Your task to perform on an android device: Show the shopping cart on ebay.com. Add razer nari to the cart on ebay.com Image 0: 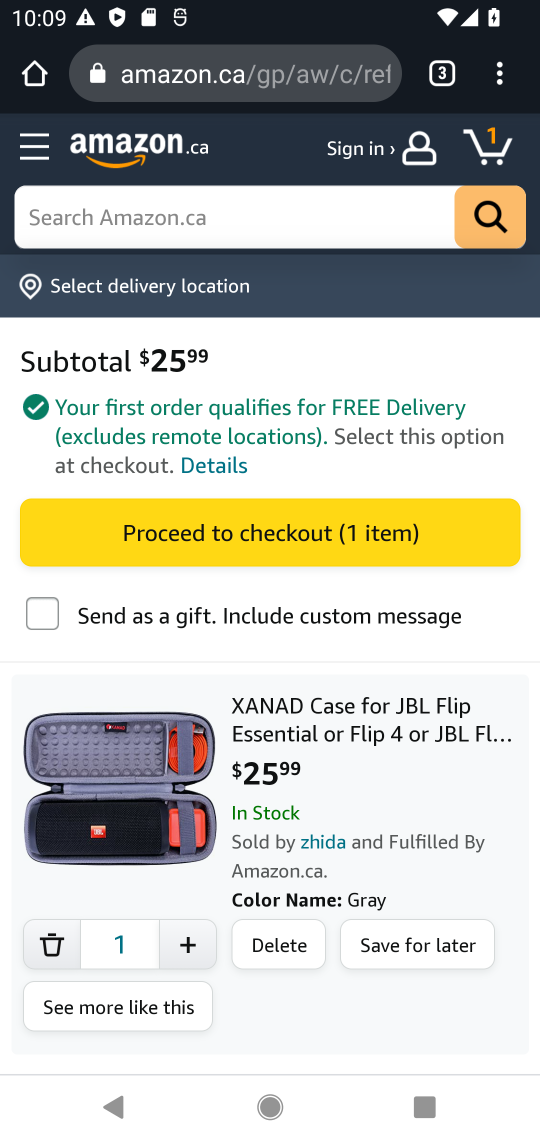
Step 0: press back button
Your task to perform on an android device: Show the shopping cart on ebay.com. Add razer nari to the cart on ebay.com Image 1: 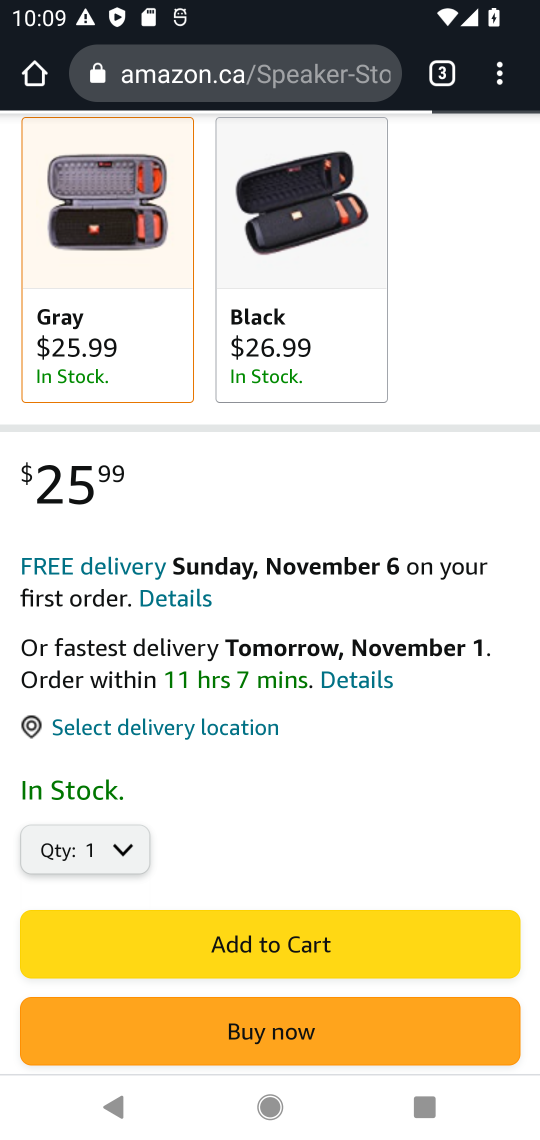
Step 1: press back button
Your task to perform on an android device: Show the shopping cart on ebay.com. Add razer nari to the cart on ebay.com Image 2: 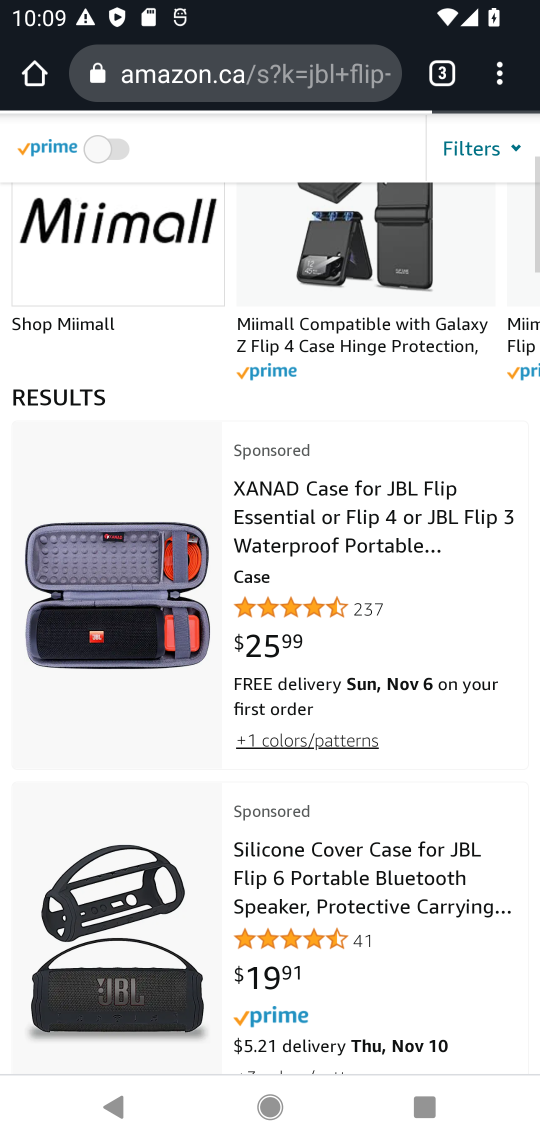
Step 2: press home button
Your task to perform on an android device: Show the shopping cart on ebay.com. Add razer nari to the cart on ebay.com Image 3: 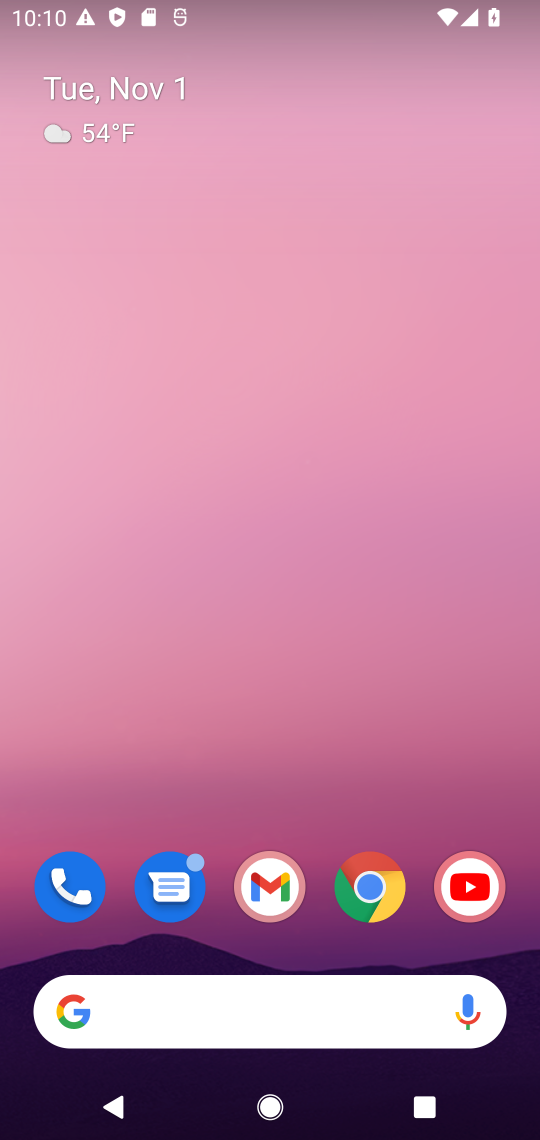
Step 3: drag from (115, 844) to (247, 120)
Your task to perform on an android device: Show the shopping cart on ebay.com. Add razer nari to the cart on ebay.com Image 4: 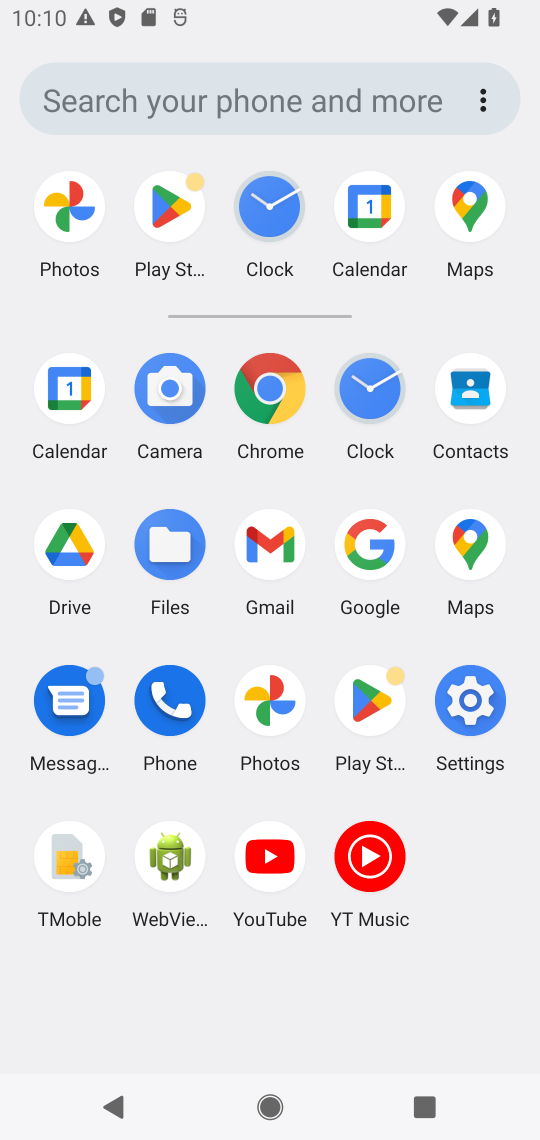
Step 4: click (365, 535)
Your task to perform on an android device: Show the shopping cart on ebay.com. Add razer nari to the cart on ebay.com Image 5: 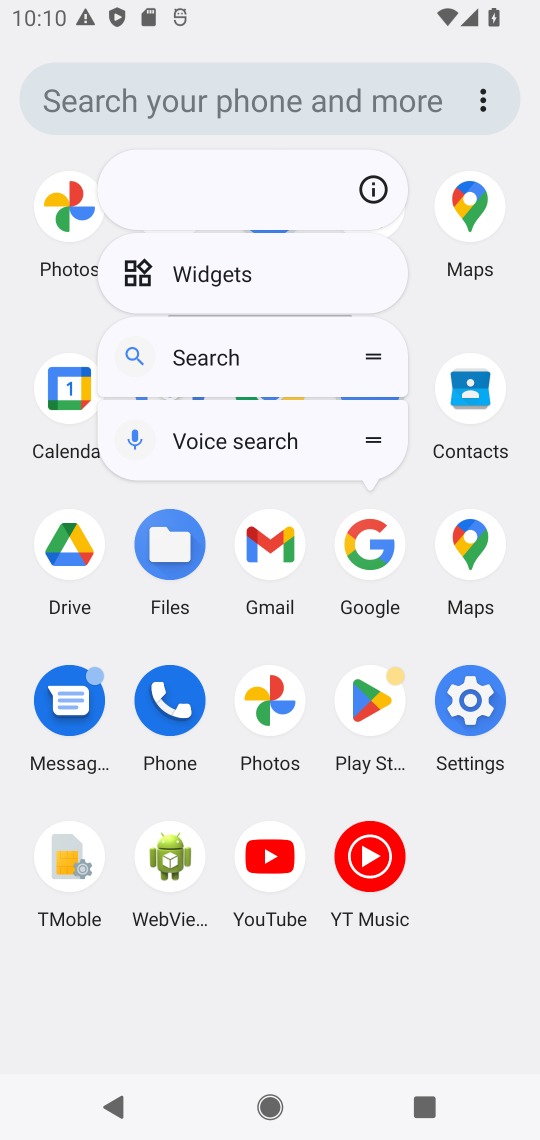
Step 5: click (359, 536)
Your task to perform on an android device: Show the shopping cart on ebay.com. Add razer nari to the cart on ebay.com Image 6: 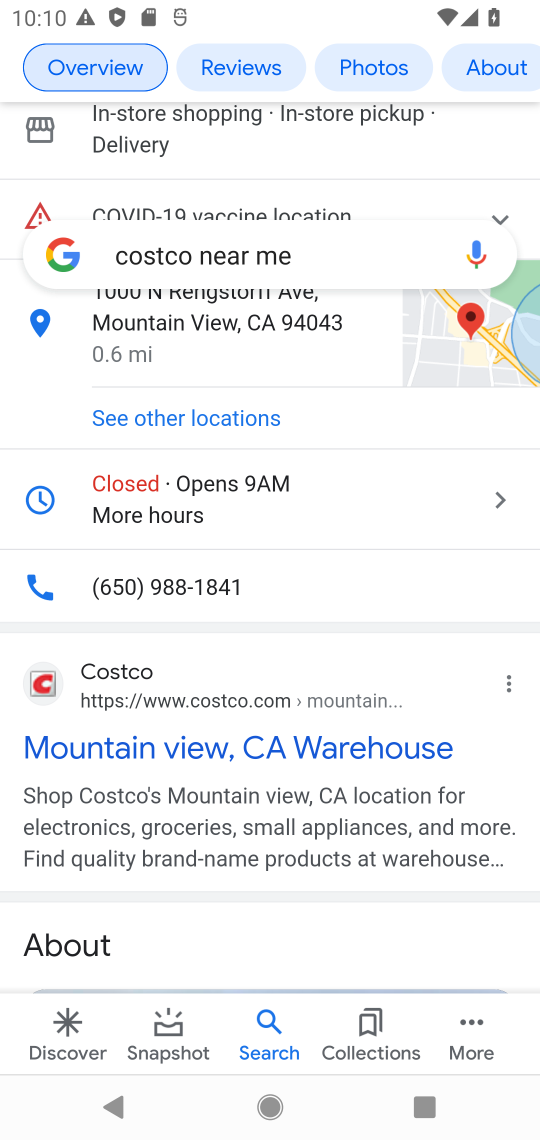
Step 6: click (263, 260)
Your task to perform on an android device: Show the shopping cart on ebay.com. Add razer nari to the cart on ebay.com Image 7: 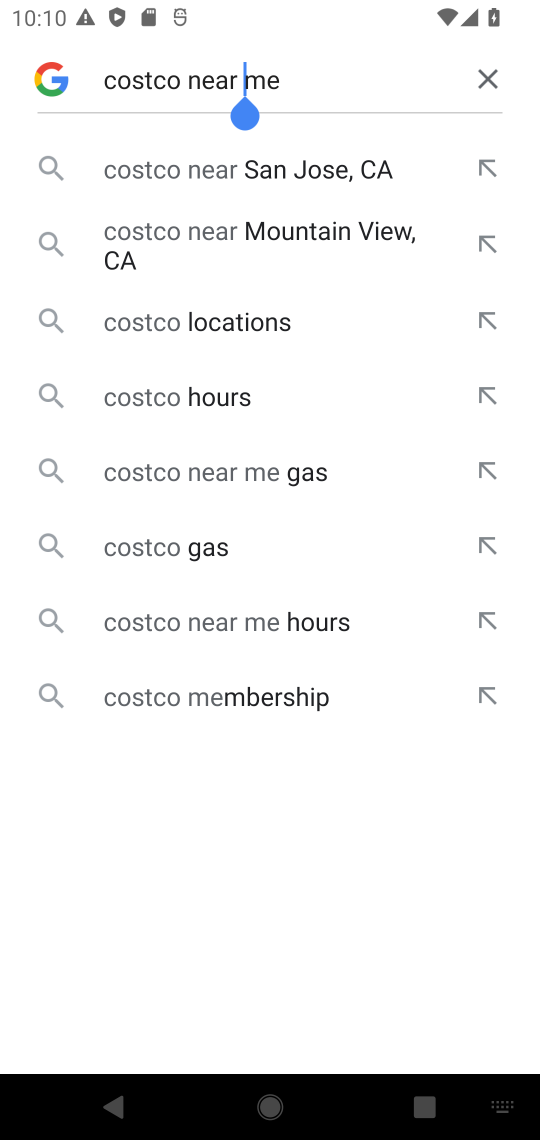
Step 7: click (491, 75)
Your task to perform on an android device: Show the shopping cart on ebay.com. Add razer nari to the cart on ebay.com Image 8: 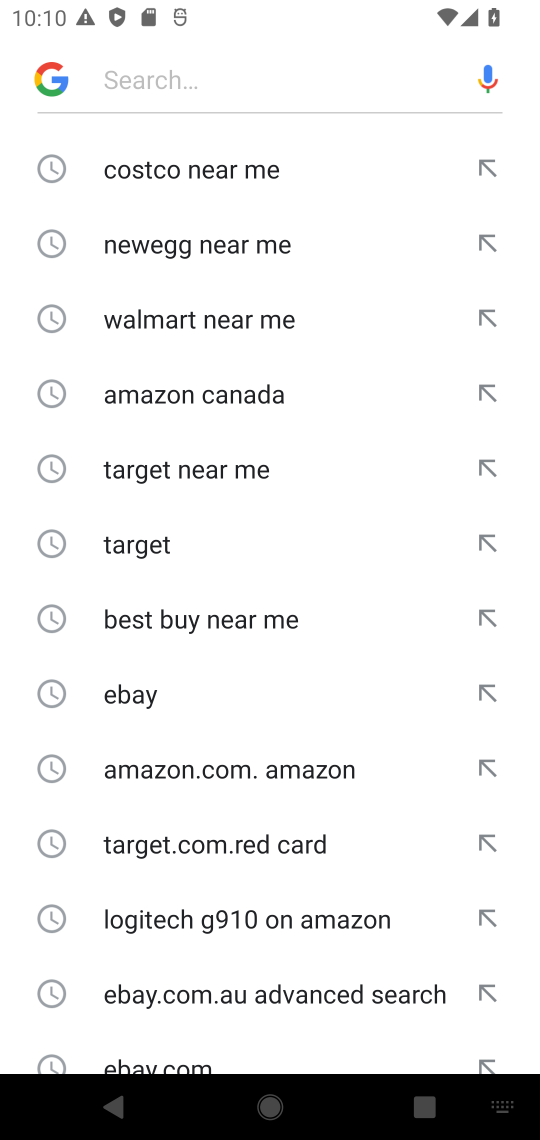
Step 8: click (256, 83)
Your task to perform on an android device: Show the shopping cart on ebay.com. Add razer nari to the cart on ebay.com Image 9: 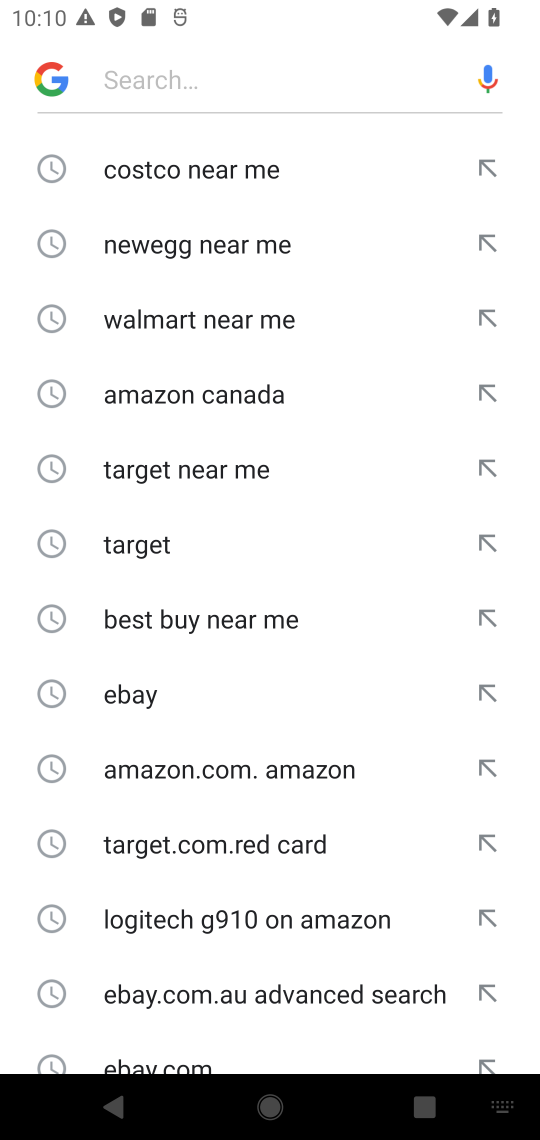
Step 9: type "ebay "
Your task to perform on an android device: Show the shopping cart on ebay.com. Add razer nari to the cart on ebay.com Image 10: 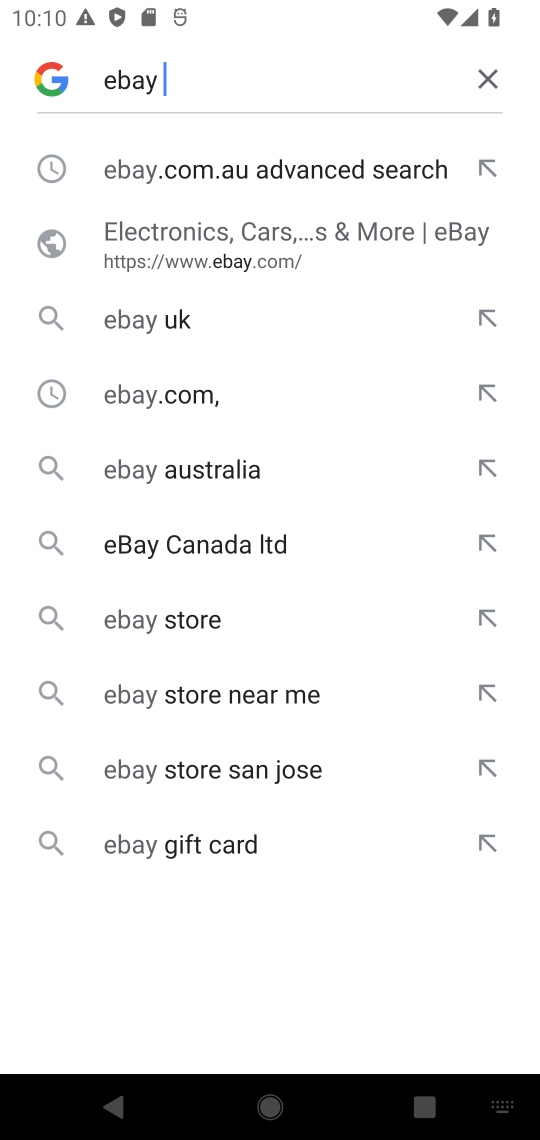
Step 10: click (184, 160)
Your task to perform on an android device: Show the shopping cart on ebay.com. Add razer nari to the cart on ebay.com Image 11: 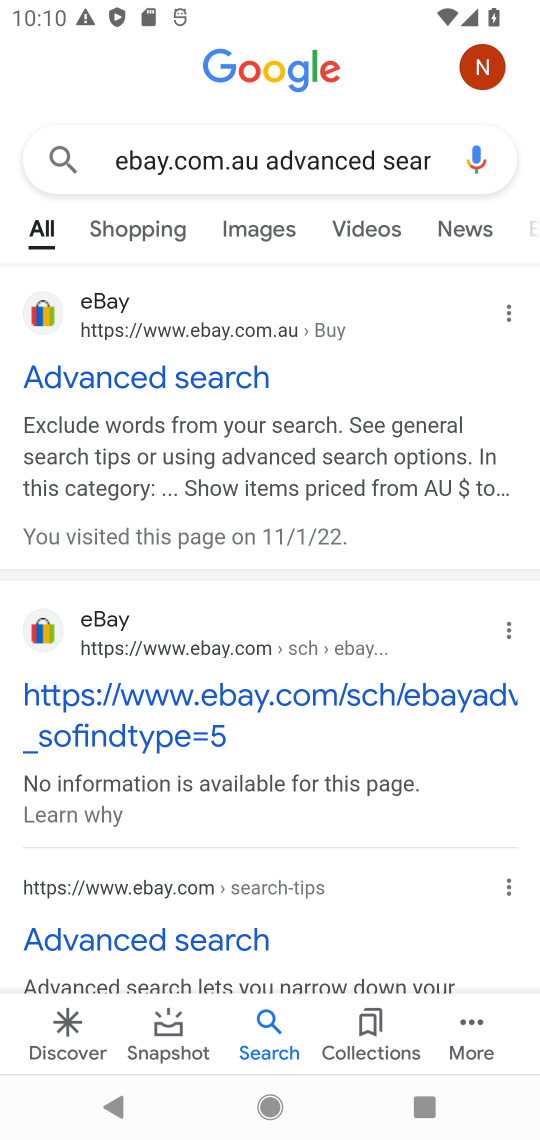
Step 11: click (47, 314)
Your task to perform on an android device: Show the shopping cart on ebay.com. Add razer nari to the cart on ebay.com Image 12: 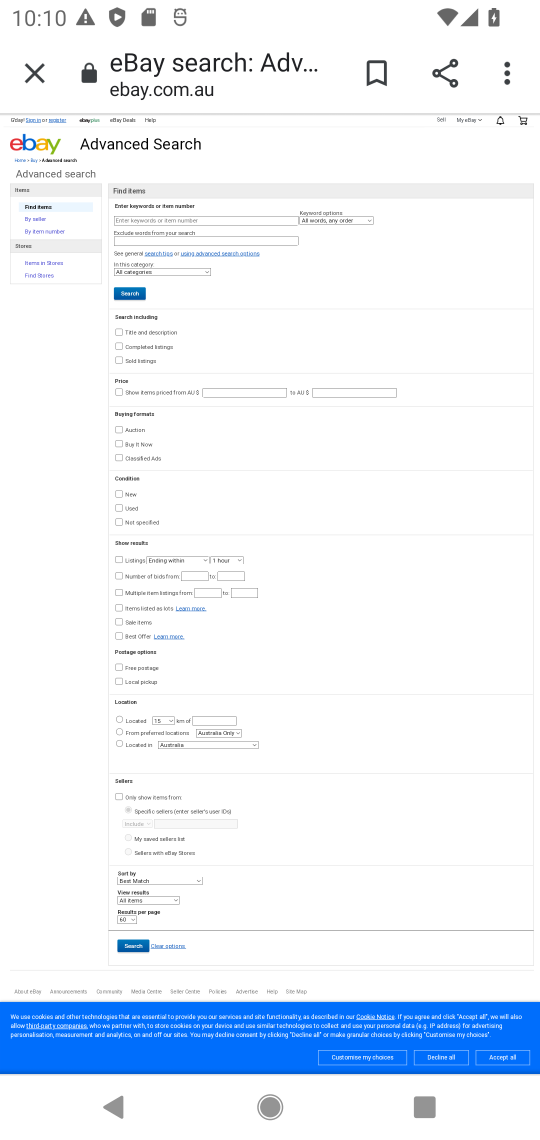
Step 12: drag from (238, 369) to (339, 150)
Your task to perform on an android device: Show the shopping cart on ebay.com. Add razer nari to the cart on ebay.com Image 13: 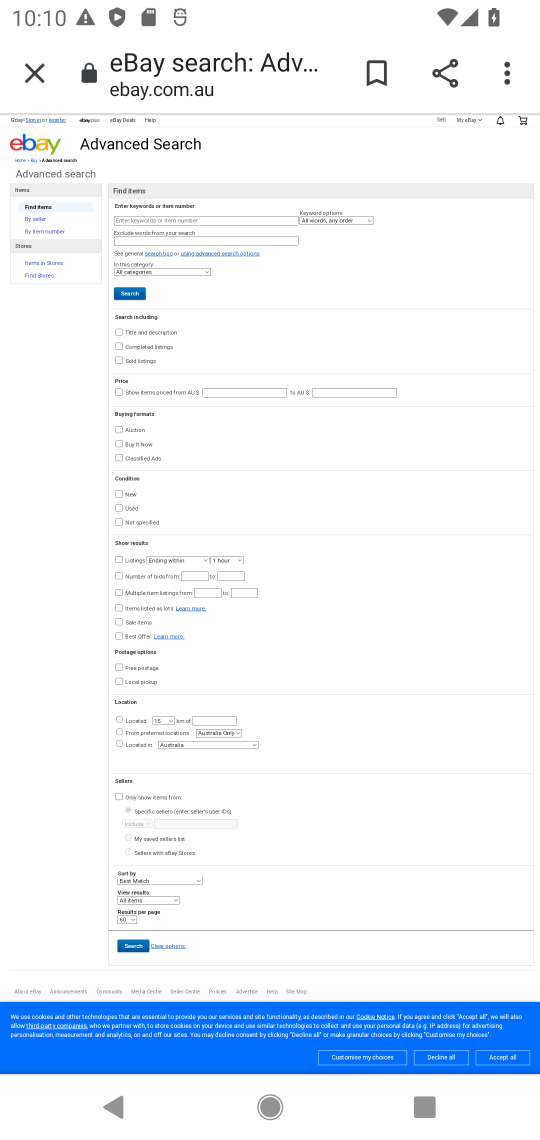
Step 13: press back button
Your task to perform on an android device: Show the shopping cart on ebay.com. Add razer nari to the cart on ebay.com Image 14: 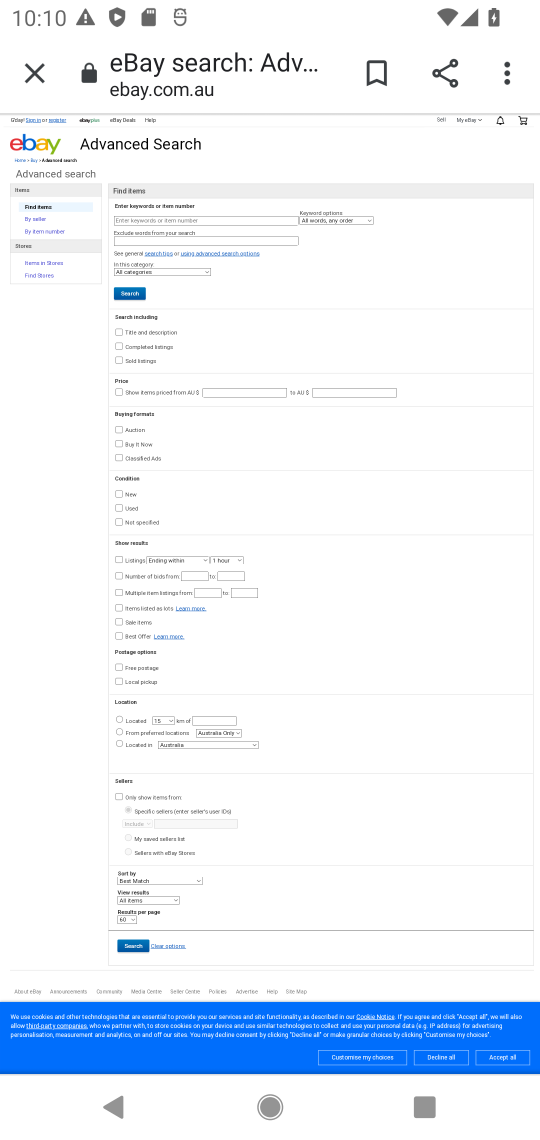
Step 14: click (339, 150)
Your task to perform on an android device: Show the shopping cart on ebay.com. Add razer nari to the cart on ebay.com Image 15: 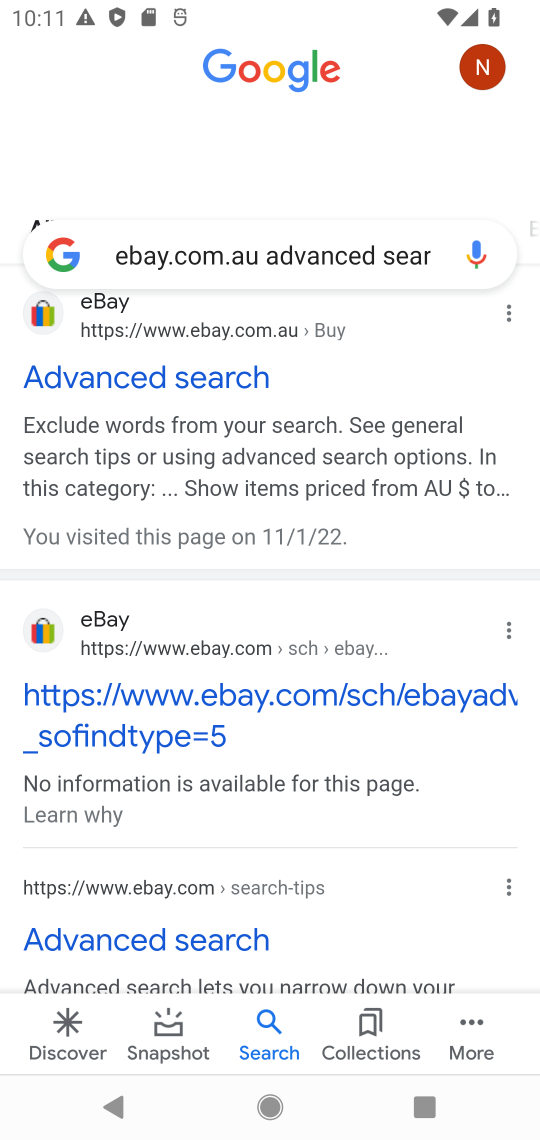
Step 15: drag from (149, 845) to (152, 575)
Your task to perform on an android device: Show the shopping cart on ebay.com. Add razer nari to the cart on ebay.com Image 16: 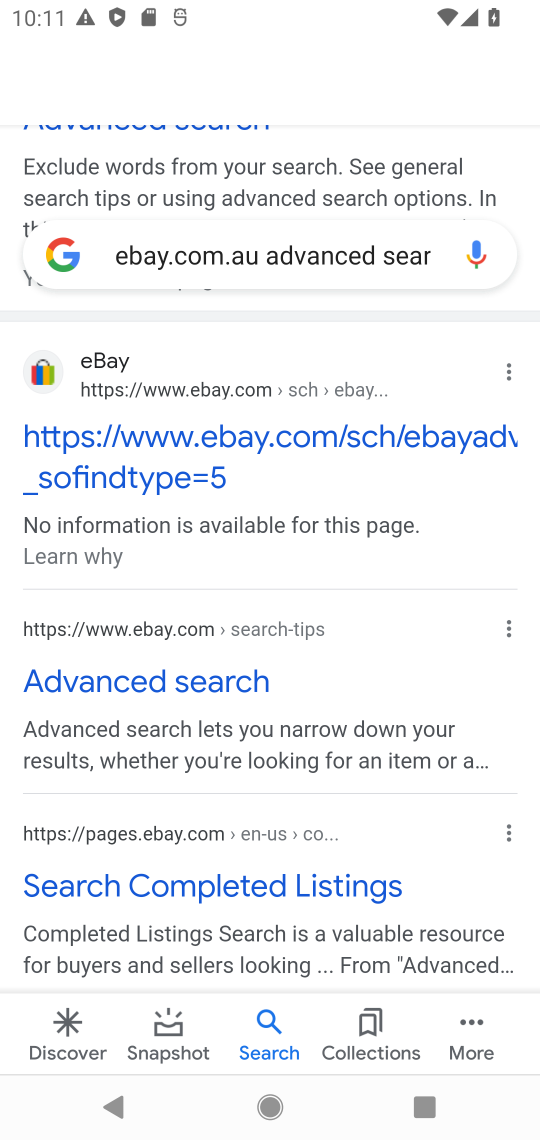
Step 16: click (45, 371)
Your task to perform on an android device: Show the shopping cart on ebay.com. Add razer nari to the cart on ebay.com Image 17: 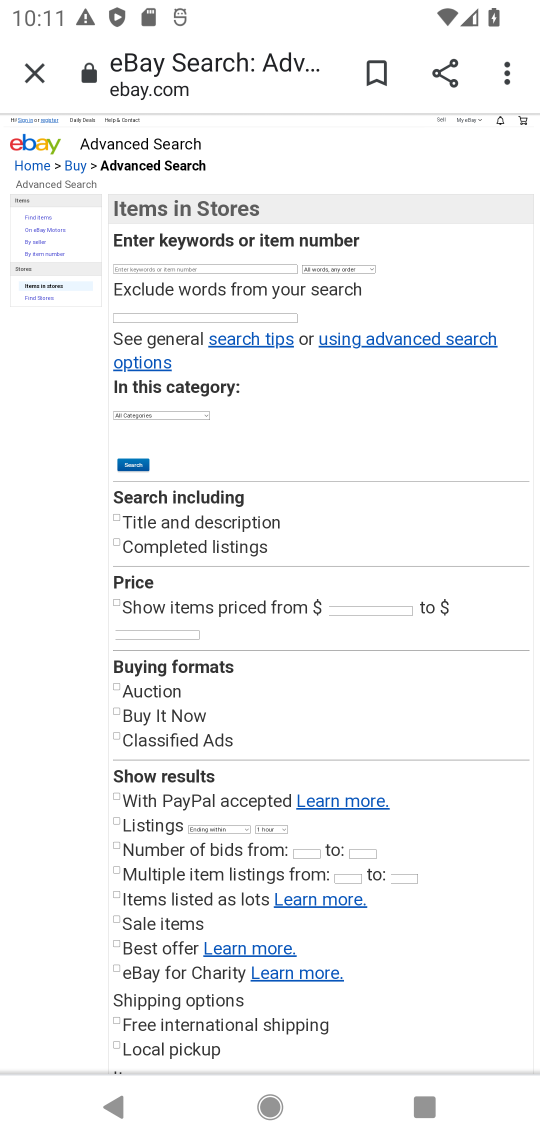
Step 17: press back button
Your task to perform on an android device: Show the shopping cart on ebay.com. Add razer nari to the cart on ebay.com Image 18: 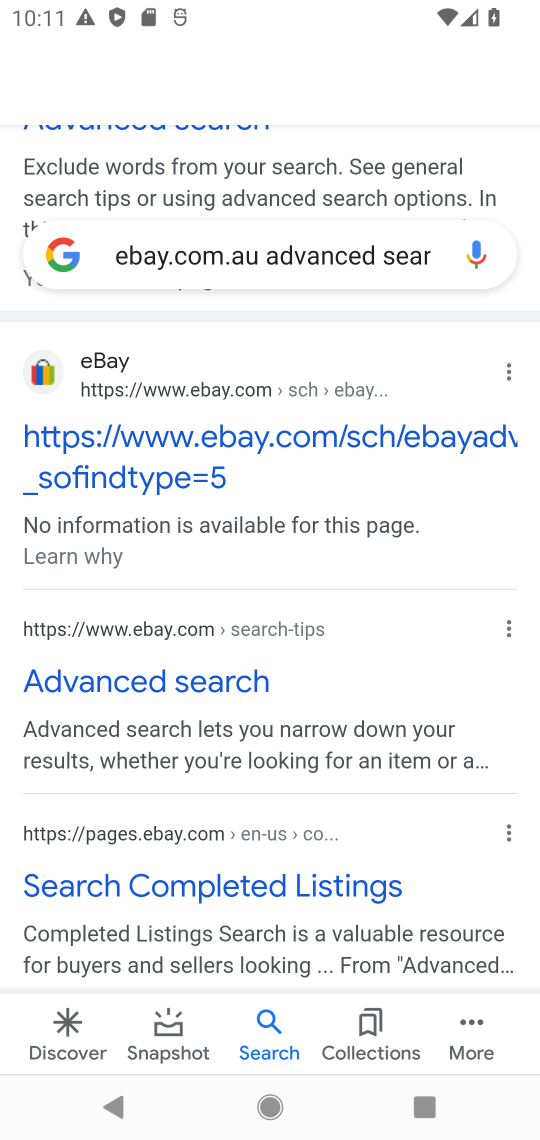
Step 18: drag from (206, 839) to (226, 368)
Your task to perform on an android device: Show the shopping cart on ebay.com. Add razer nari to the cart on ebay.com Image 19: 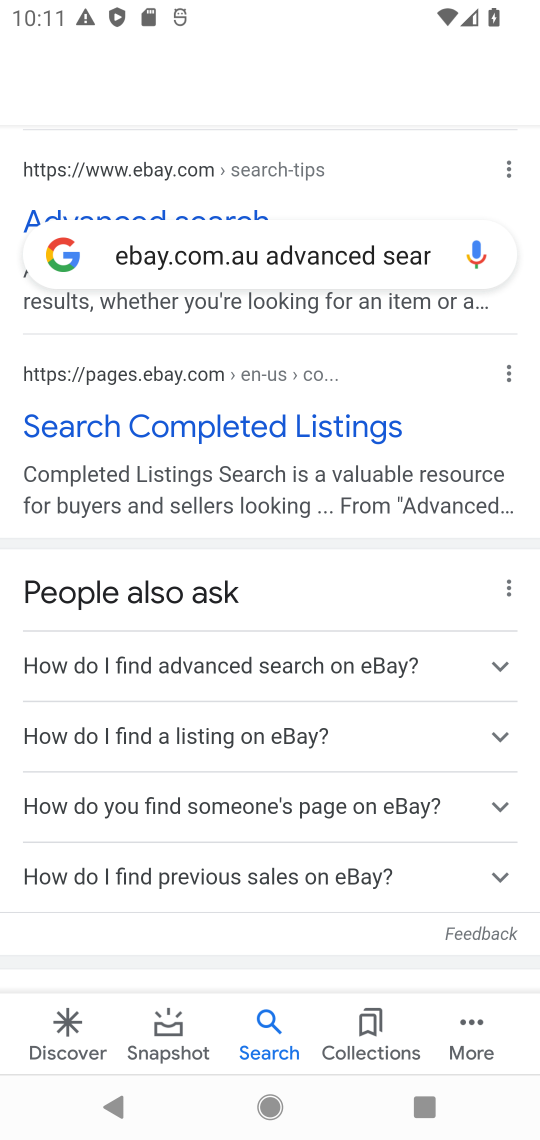
Step 19: drag from (216, 819) to (253, 441)
Your task to perform on an android device: Show the shopping cart on ebay.com. Add razer nari to the cart on ebay.com Image 20: 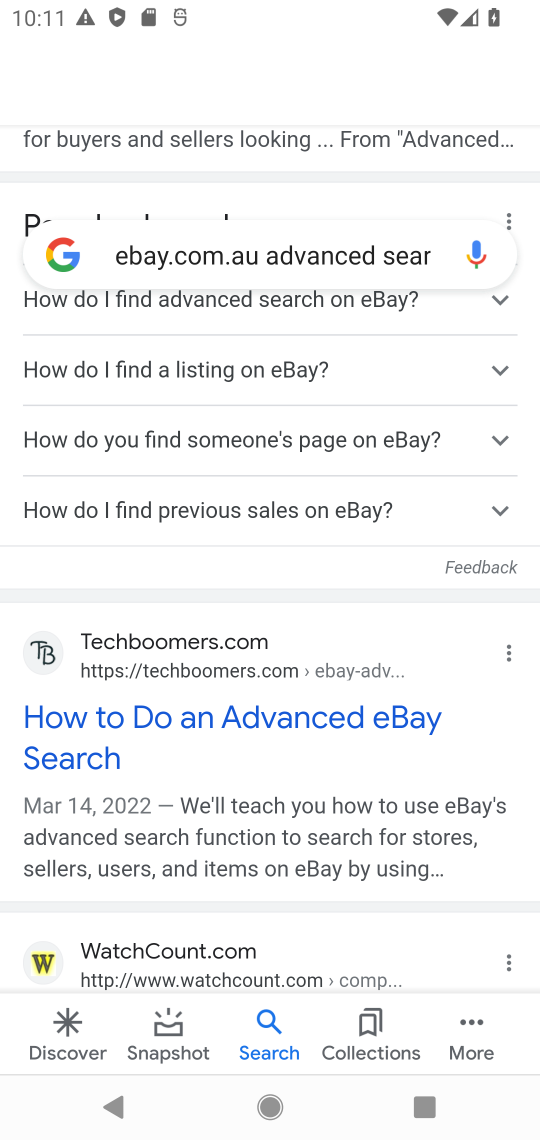
Step 20: click (295, 245)
Your task to perform on an android device: Show the shopping cart on ebay.com. Add razer nari to the cart on ebay.com Image 21: 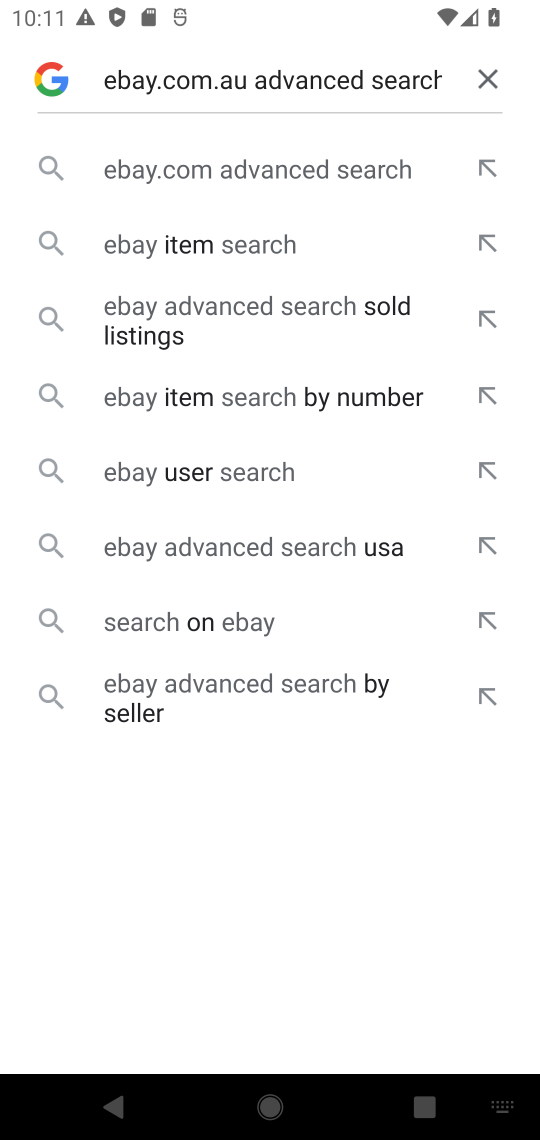
Step 21: click (487, 65)
Your task to perform on an android device: Show the shopping cart on ebay.com. Add razer nari to the cart on ebay.com Image 22: 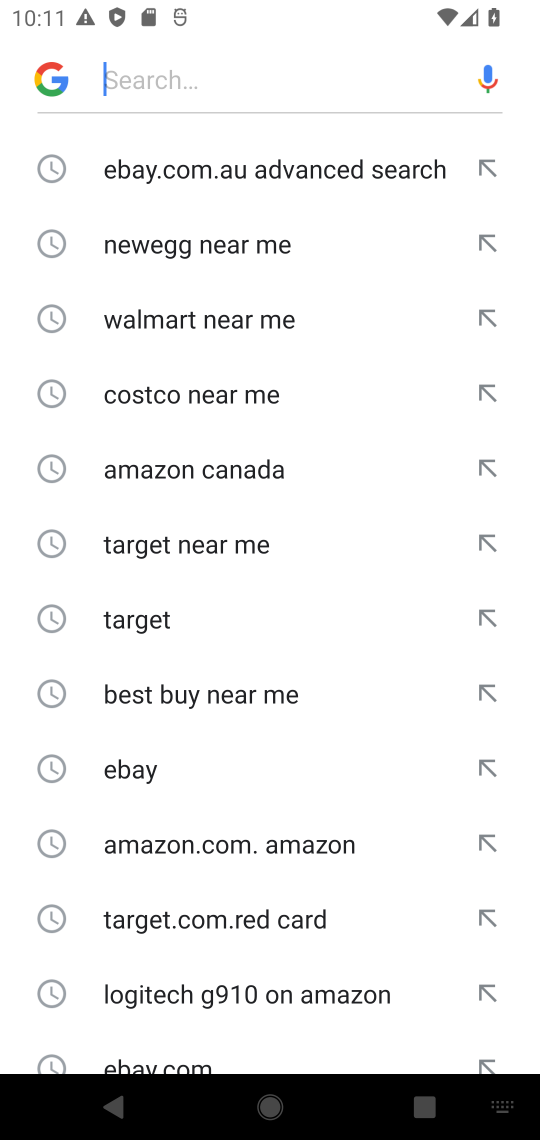
Step 22: click (143, 757)
Your task to perform on an android device: Show the shopping cart on ebay.com. Add razer nari to the cart on ebay.com Image 23: 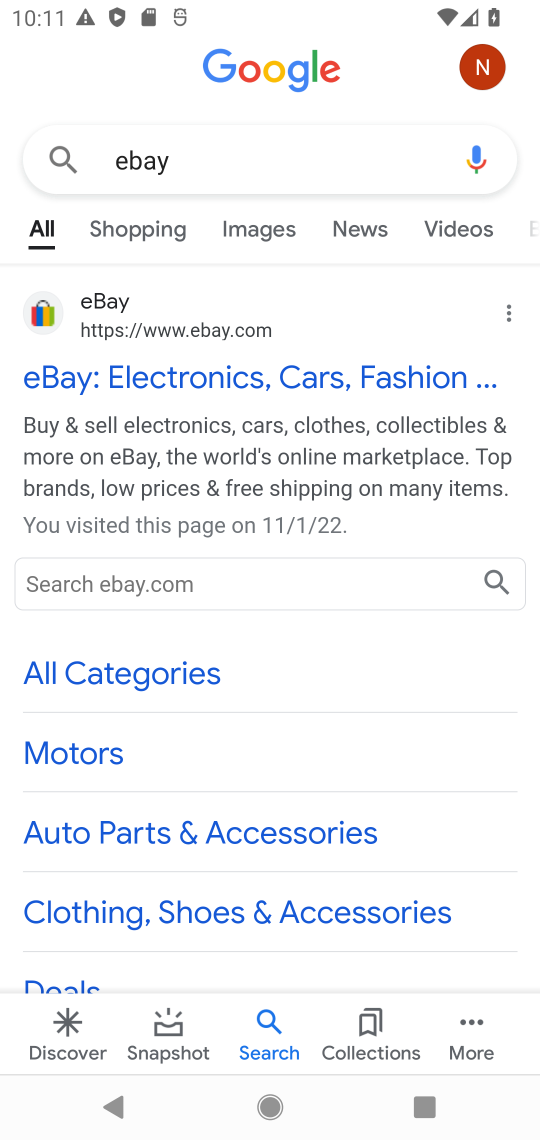
Step 23: click (56, 310)
Your task to perform on an android device: Show the shopping cart on ebay.com. Add razer nari to the cart on ebay.com Image 24: 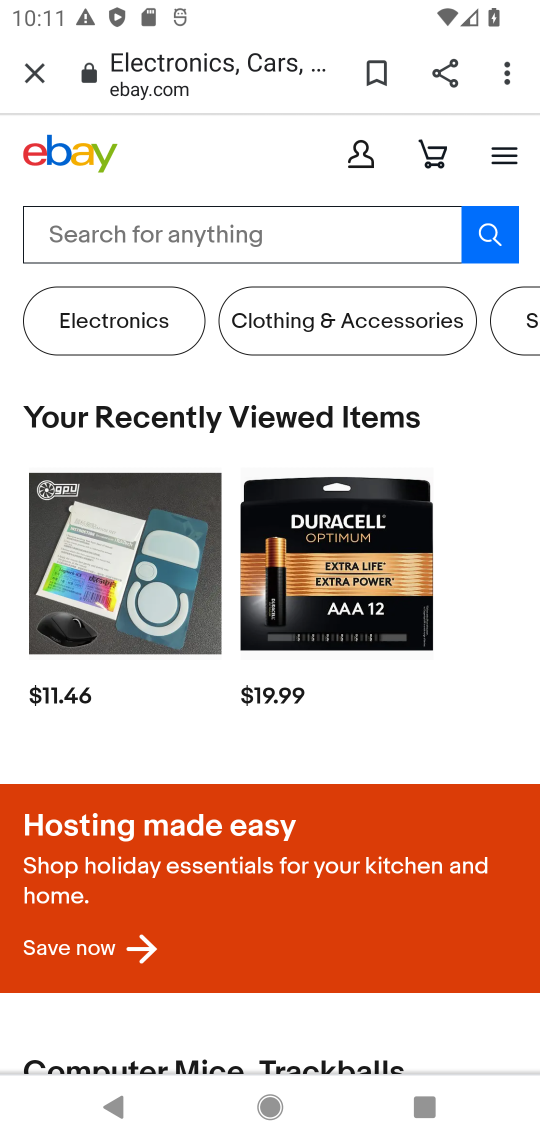
Step 24: click (257, 218)
Your task to perform on an android device: Show the shopping cart on ebay.com. Add razer nari to the cart on ebay.com Image 25: 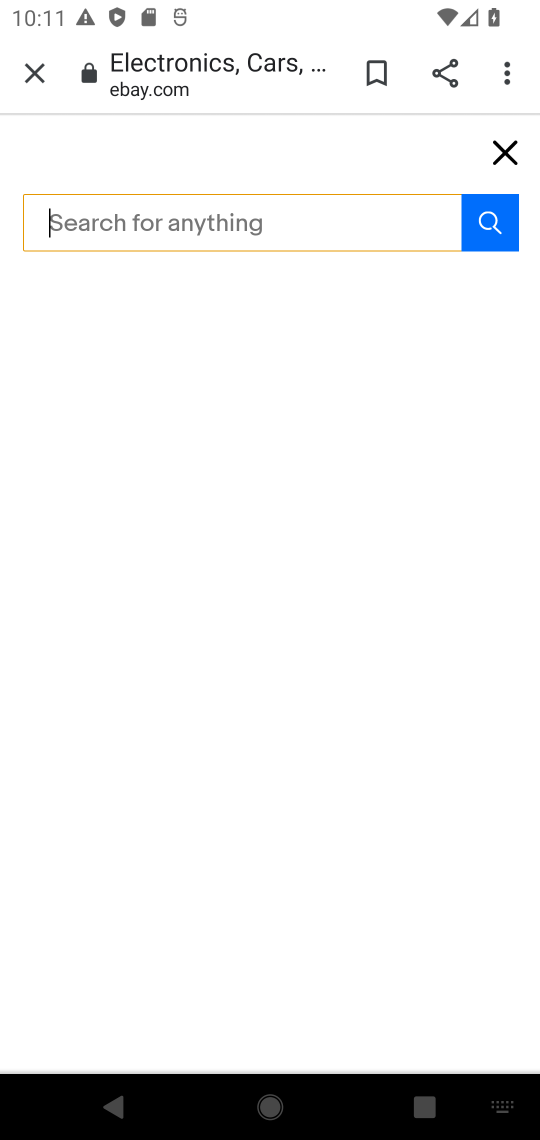
Step 25: type "razer nari  "
Your task to perform on an android device: Show the shopping cart on ebay.com. Add razer nari to the cart on ebay.com Image 26: 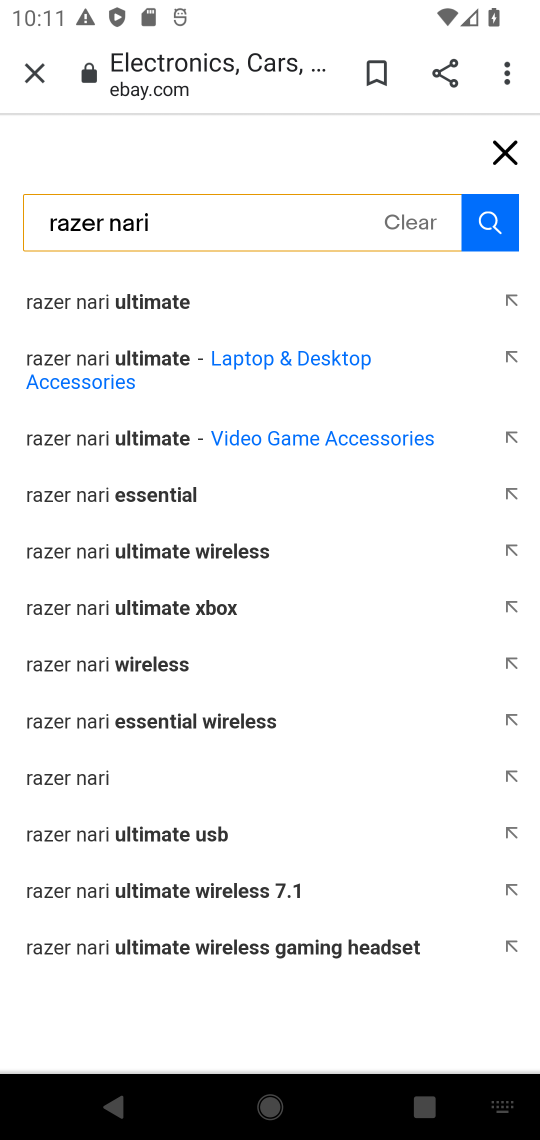
Step 26: click (108, 291)
Your task to perform on an android device: Show the shopping cart on ebay.com. Add razer nari to the cart on ebay.com Image 27: 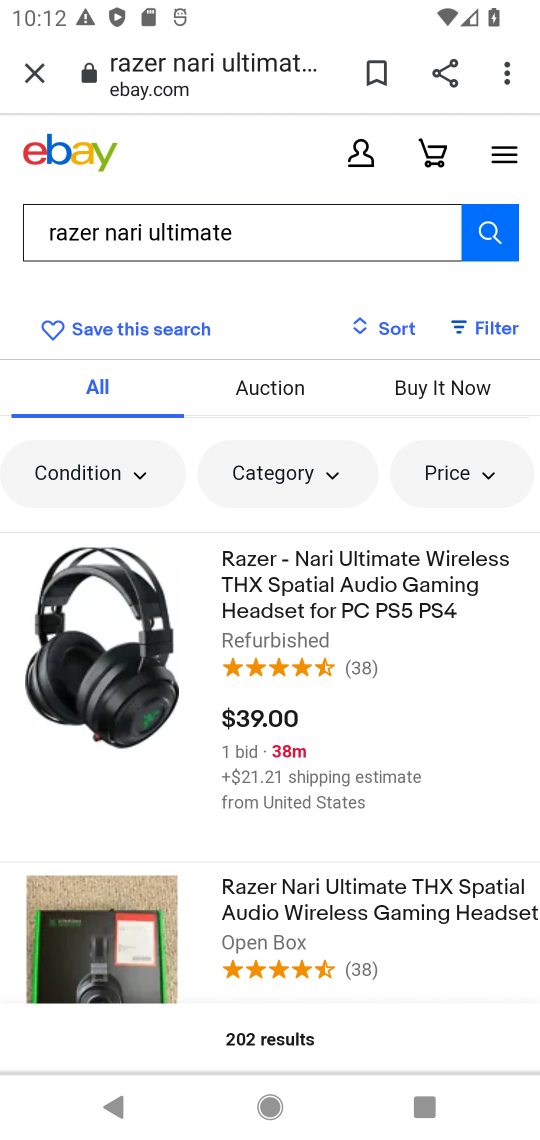
Step 27: drag from (453, 964) to (437, 567)
Your task to perform on an android device: Show the shopping cart on ebay.com. Add razer nari to the cart on ebay.com Image 28: 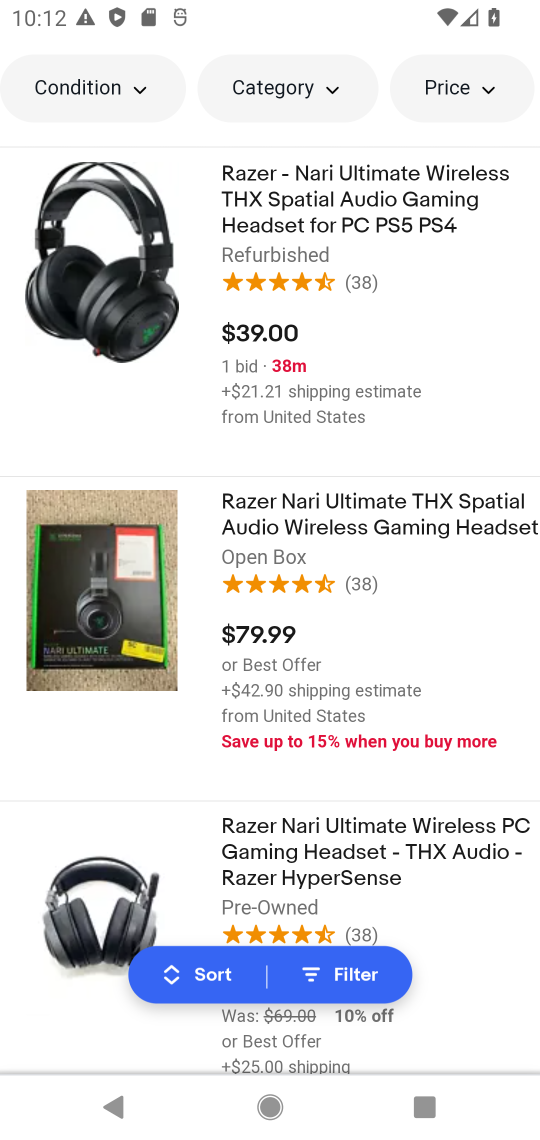
Step 28: click (259, 174)
Your task to perform on an android device: Show the shopping cart on ebay.com. Add razer nari to the cart on ebay.com Image 29: 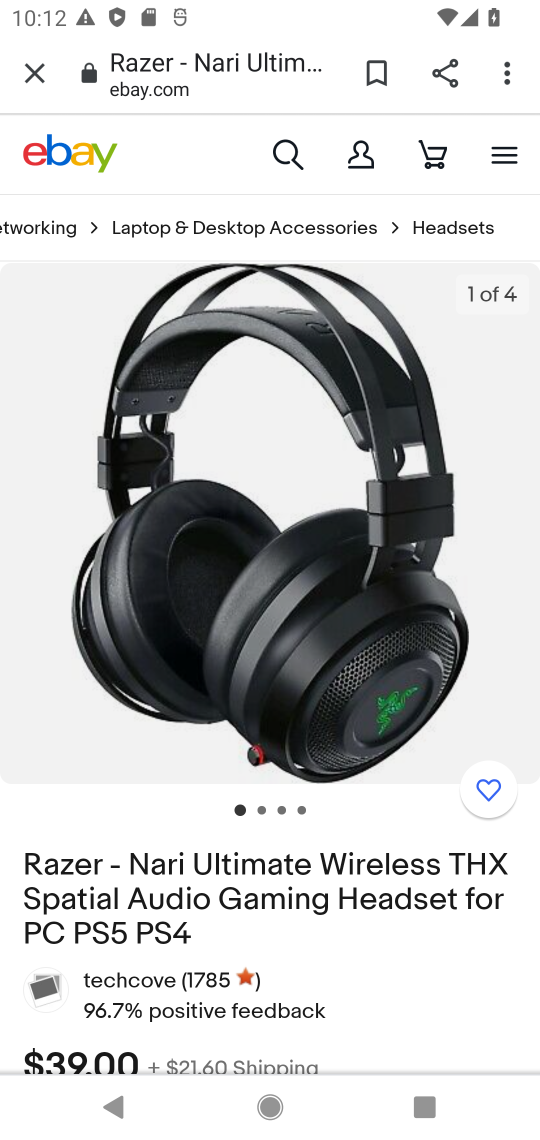
Step 29: drag from (383, 947) to (402, 454)
Your task to perform on an android device: Show the shopping cart on ebay.com. Add razer nari to the cart on ebay.com Image 30: 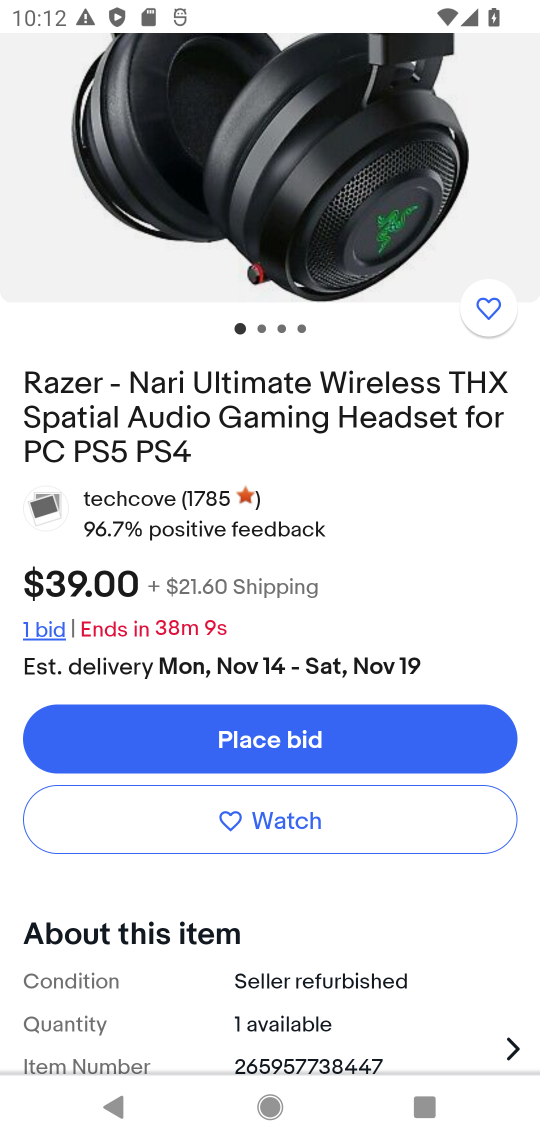
Step 30: drag from (323, 942) to (350, 437)
Your task to perform on an android device: Show the shopping cart on ebay.com. Add razer nari to the cart on ebay.com Image 31: 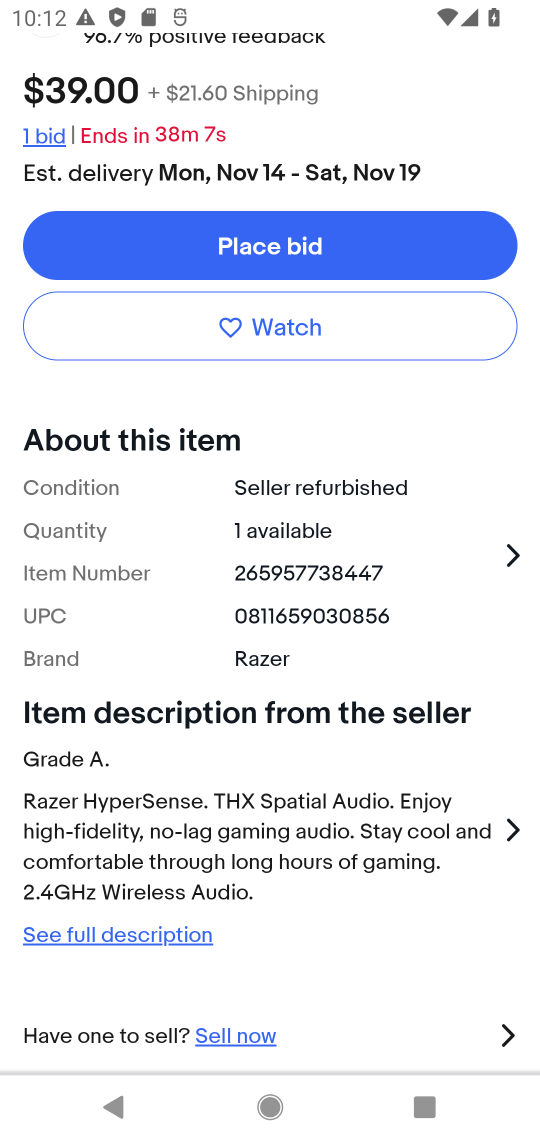
Step 31: click (326, 984)
Your task to perform on an android device: Show the shopping cart on ebay.com. Add razer nari to the cart on ebay.com Image 32: 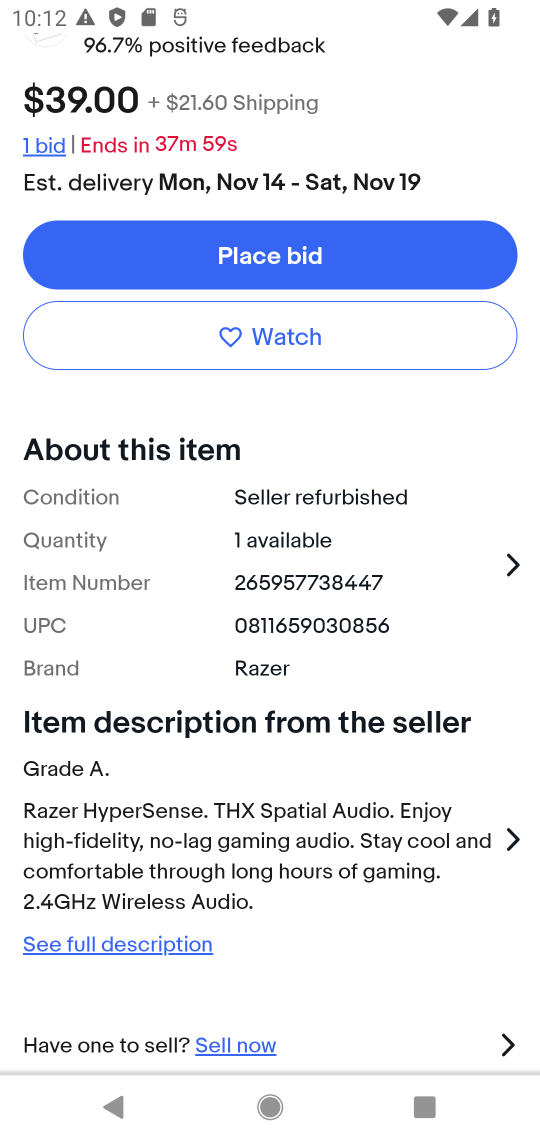
Step 32: drag from (387, 280) to (350, 819)
Your task to perform on an android device: Show the shopping cart on ebay.com. Add razer nari to the cart on ebay.com Image 33: 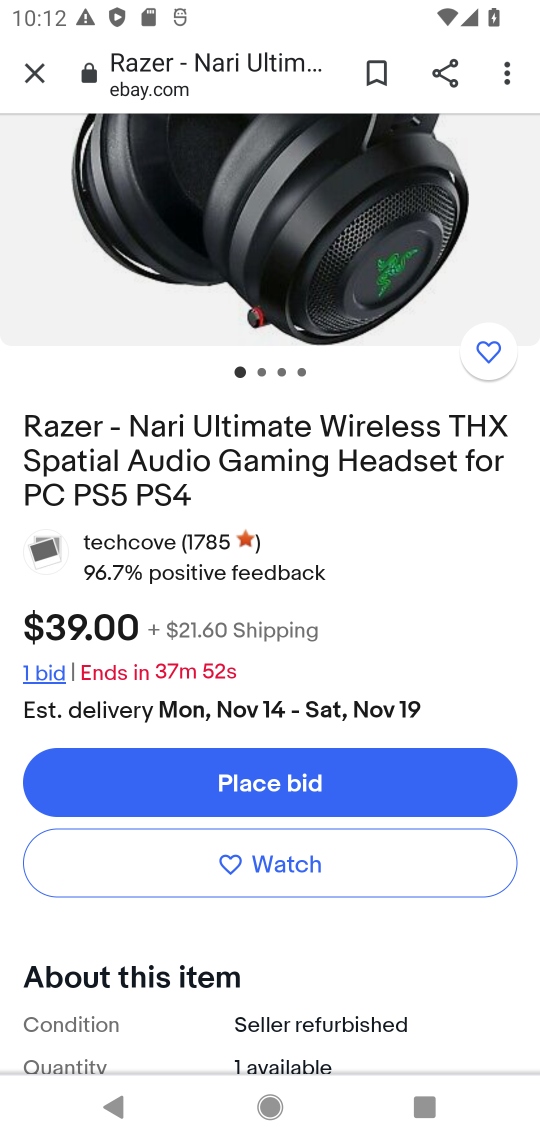
Step 33: drag from (338, 327) to (338, 155)
Your task to perform on an android device: Show the shopping cart on ebay.com. Add razer nari to the cart on ebay.com Image 34: 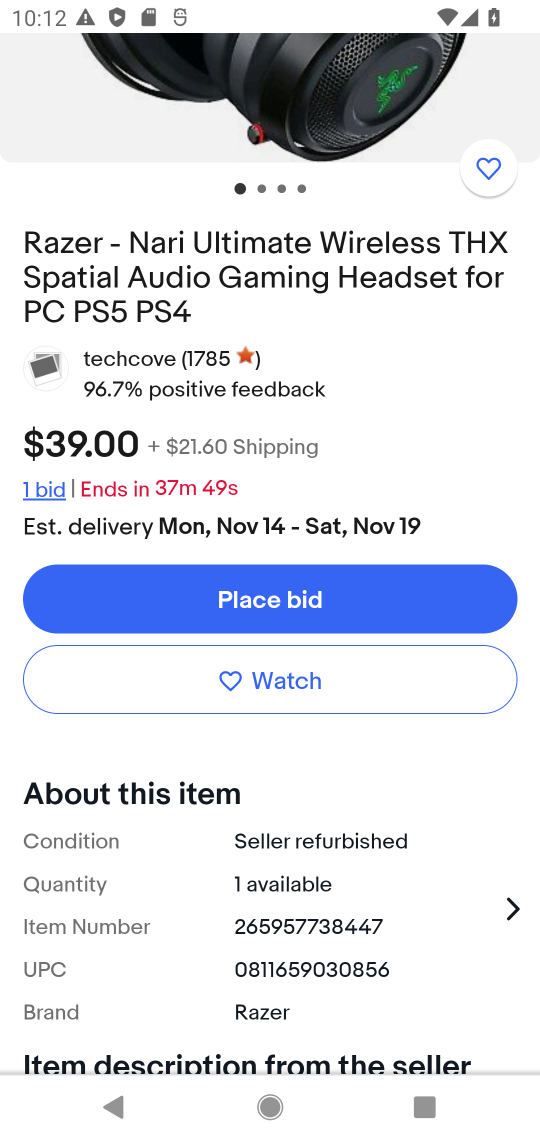
Step 34: drag from (326, 732) to (334, 224)
Your task to perform on an android device: Show the shopping cart on ebay.com. Add razer nari to the cart on ebay.com Image 35: 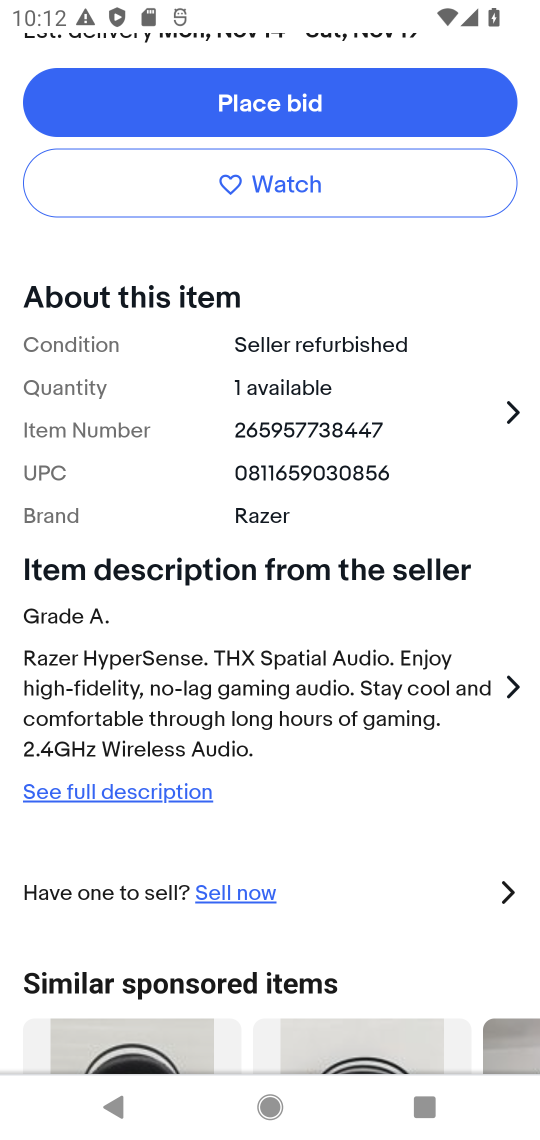
Step 35: drag from (331, 768) to (391, 315)
Your task to perform on an android device: Show the shopping cart on ebay.com. Add razer nari to the cart on ebay.com Image 36: 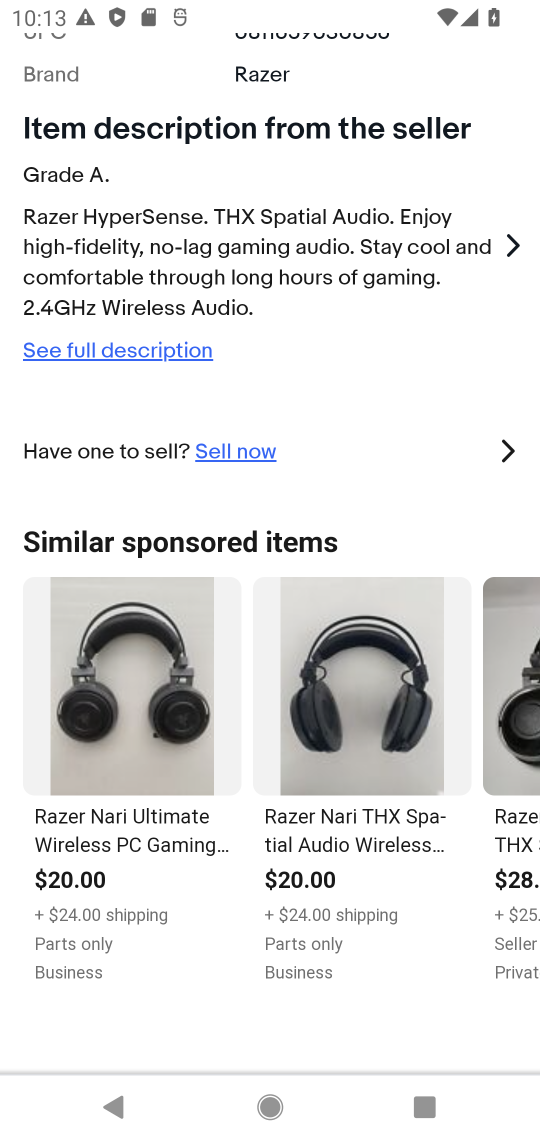
Step 36: drag from (226, 792) to (300, 373)
Your task to perform on an android device: Show the shopping cart on ebay.com. Add razer nari to the cart on ebay.com Image 37: 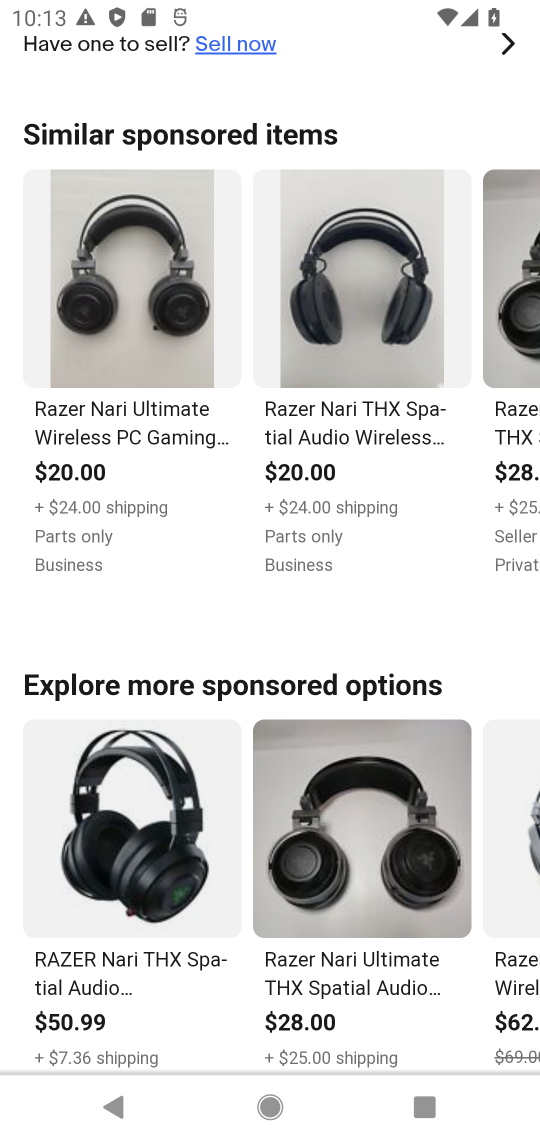
Step 37: press back button
Your task to perform on an android device: Show the shopping cart on ebay.com. Add razer nari to the cart on ebay.com Image 38: 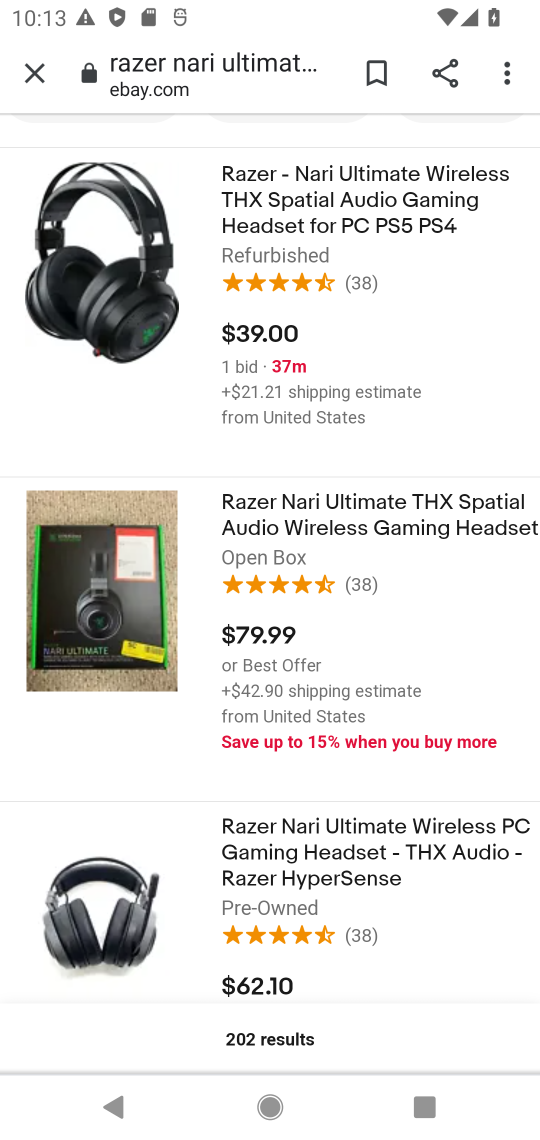
Step 38: click (374, 837)
Your task to perform on an android device: Show the shopping cart on ebay.com. Add razer nari to the cart on ebay.com Image 39: 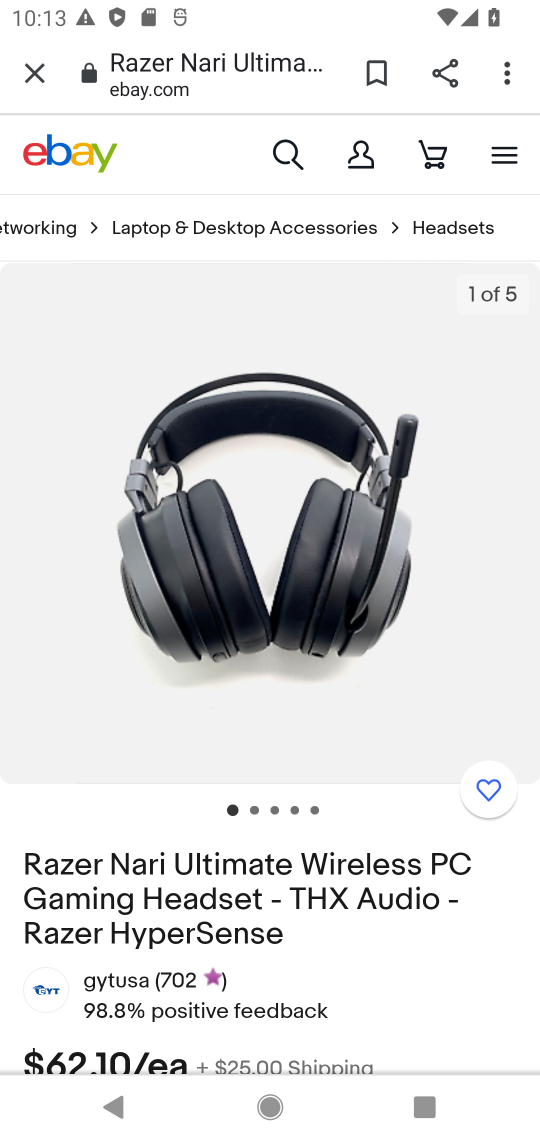
Step 39: drag from (402, 946) to (411, 293)
Your task to perform on an android device: Show the shopping cart on ebay.com. Add razer nari to the cart on ebay.com Image 40: 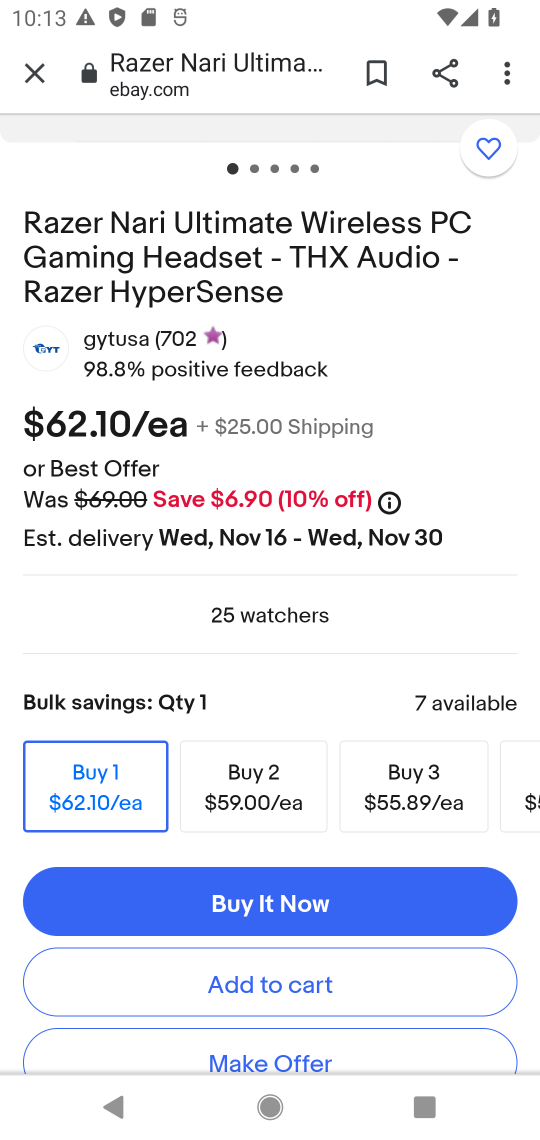
Step 40: click (305, 977)
Your task to perform on an android device: Show the shopping cart on ebay.com. Add razer nari to the cart on ebay.com Image 41: 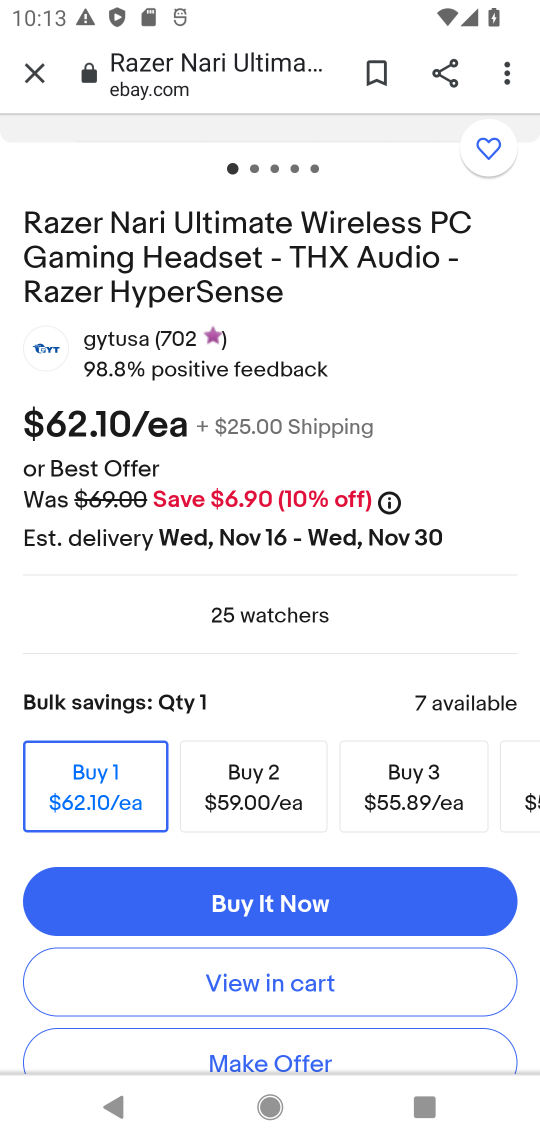
Step 41: task complete